Your task to perform on an android device: turn on showing notifications on the lock screen Image 0: 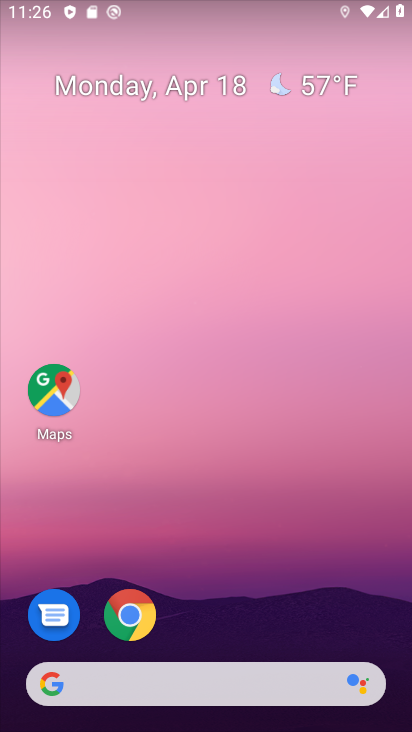
Step 0: drag from (249, 578) to (249, 228)
Your task to perform on an android device: turn on showing notifications on the lock screen Image 1: 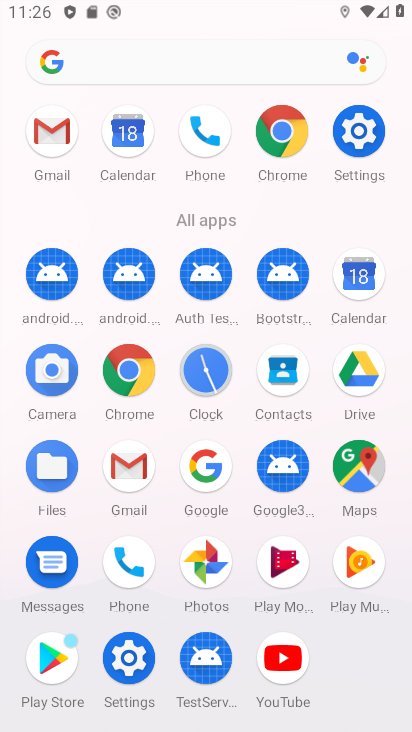
Step 1: click (354, 149)
Your task to perform on an android device: turn on showing notifications on the lock screen Image 2: 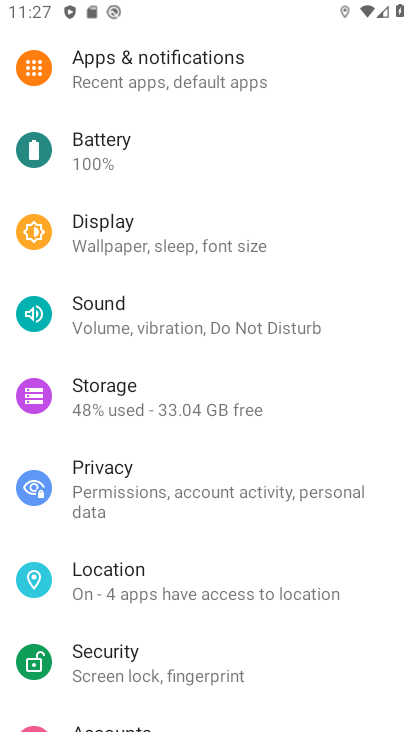
Step 2: click (246, 88)
Your task to perform on an android device: turn on showing notifications on the lock screen Image 3: 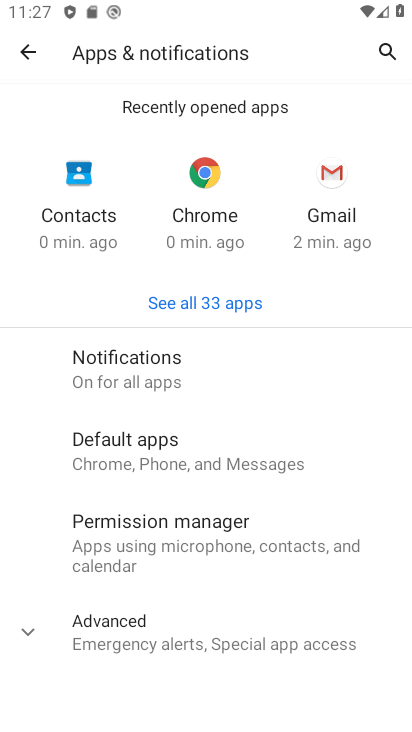
Step 3: drag from (231, 599) to (230, 375)
Your task to perform on an android device: turn on showing notifications on the lock screen Image 4: 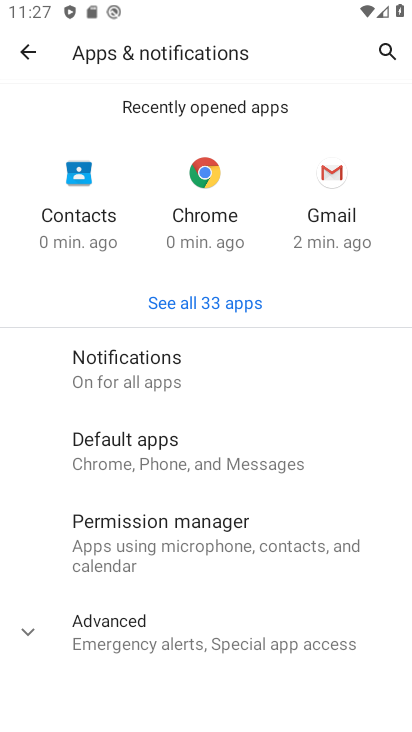
Step 4: click (121, 373)
Your task to perform on an android device: turn on showing notifications on the lock screen Image 5: 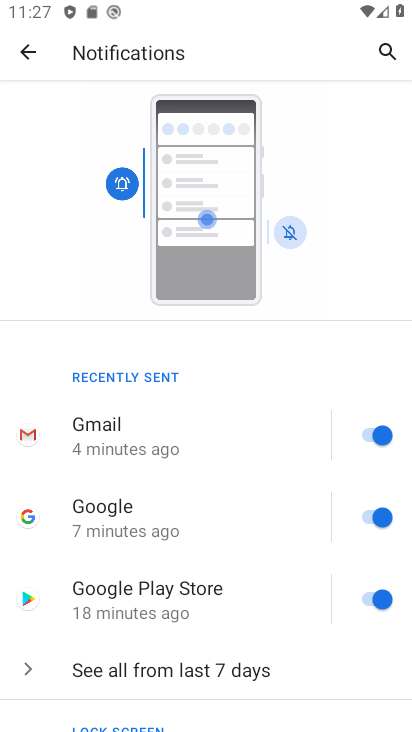
Step 5: drag from (233, 641) to (252, 165)
Your task to perform on an android device: turn on showing notifications on the lock screen Image 6: 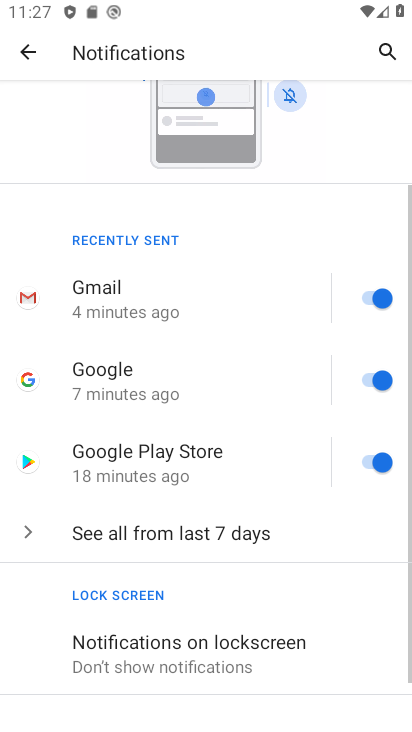
Step 6: drag from (252, 687) to (267, 418)
Your task to perform on an android device: turn on showing notifications on the lock screen Image 7: 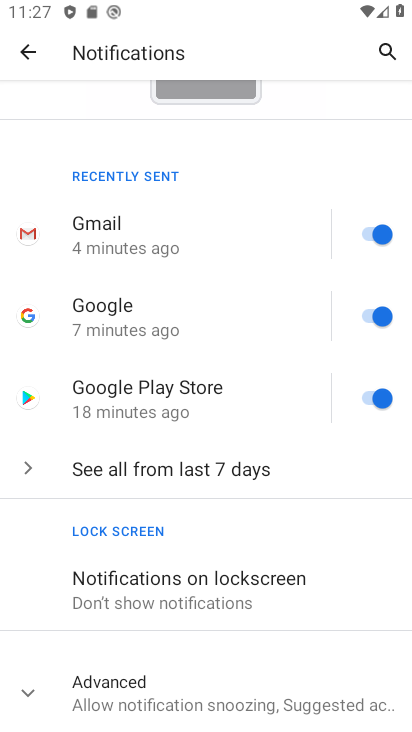
Step 7: click (228, 602)
Your task to perform on an android device: turn on showing notifications on the lock screen Image 8: 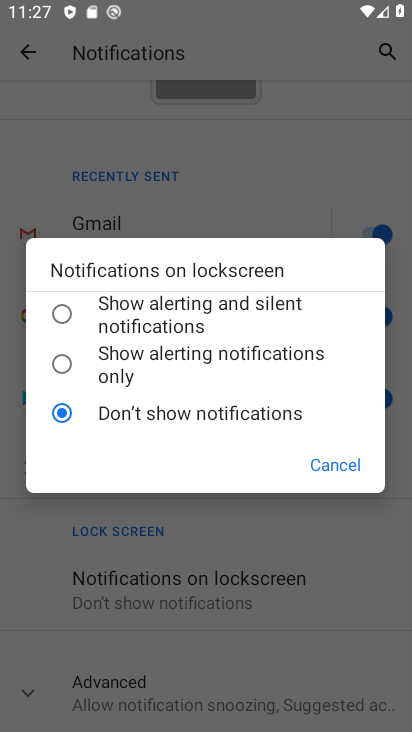
Step 8: click (70, 319)
Your task to perform on an android device: turn on showing notifications on the lock screen Image 9: 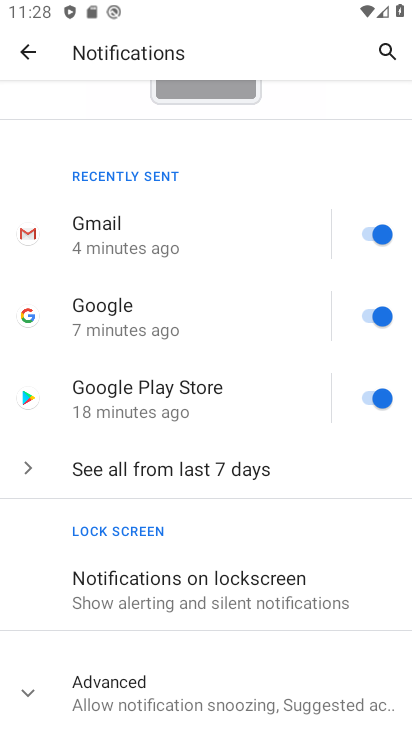
Step 9: click (245, 589)
Your task to perform on an android device: turn on showing notifications on the lock screen Image 10: 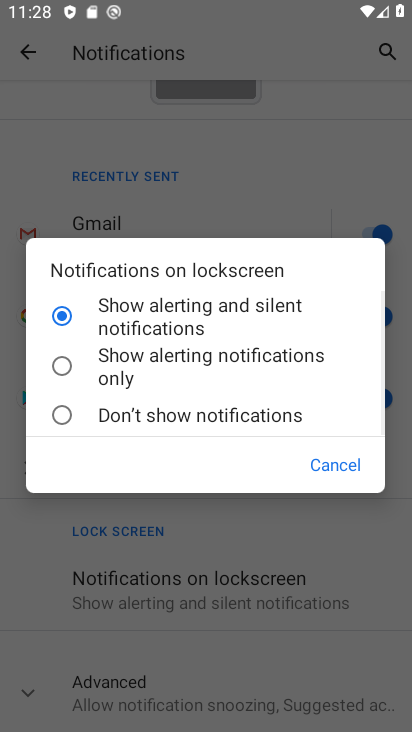
Step 10: task complete